Your task to perform on an android device: turn off priority inbox in the gmail app Image 0: 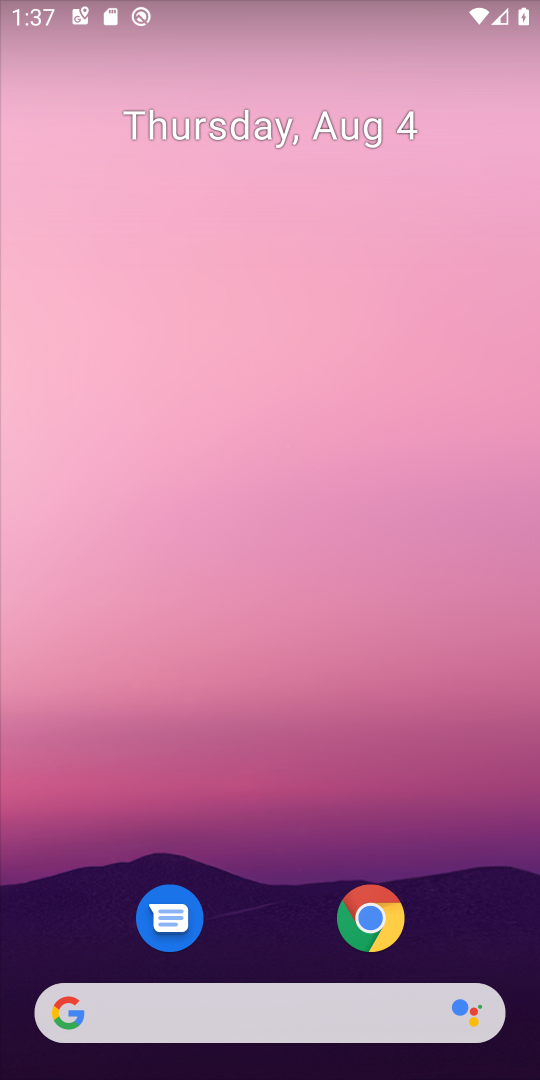
Step 0: drag from (251, 909) to (11, 349)
Your task to perform on an android device: turn off priority inbox in the gmail app Image 1: 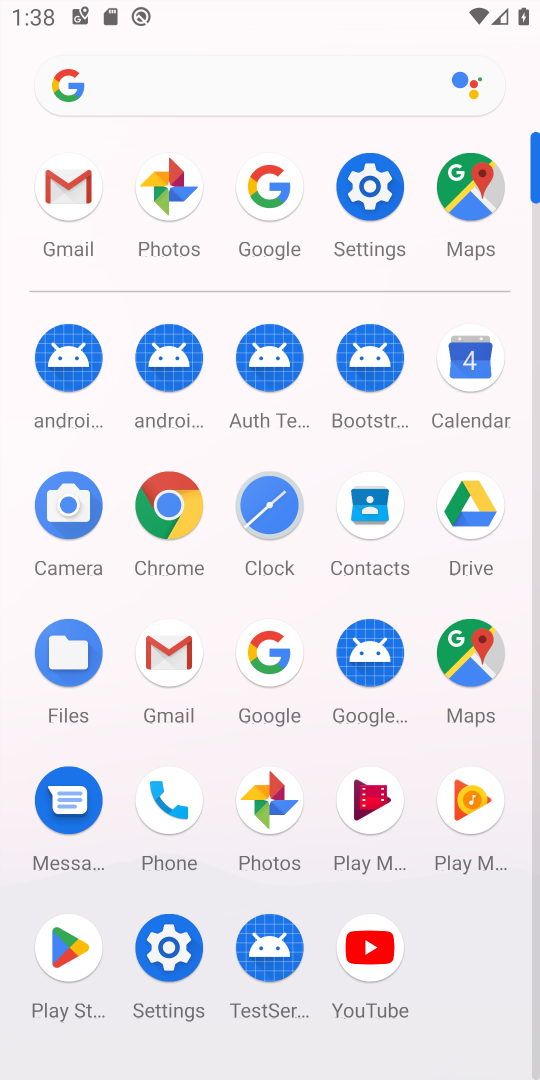
Step 1: click (76, 210)
Your task to perform on an android device: turn off priority inbox in the gmail app Image 2: 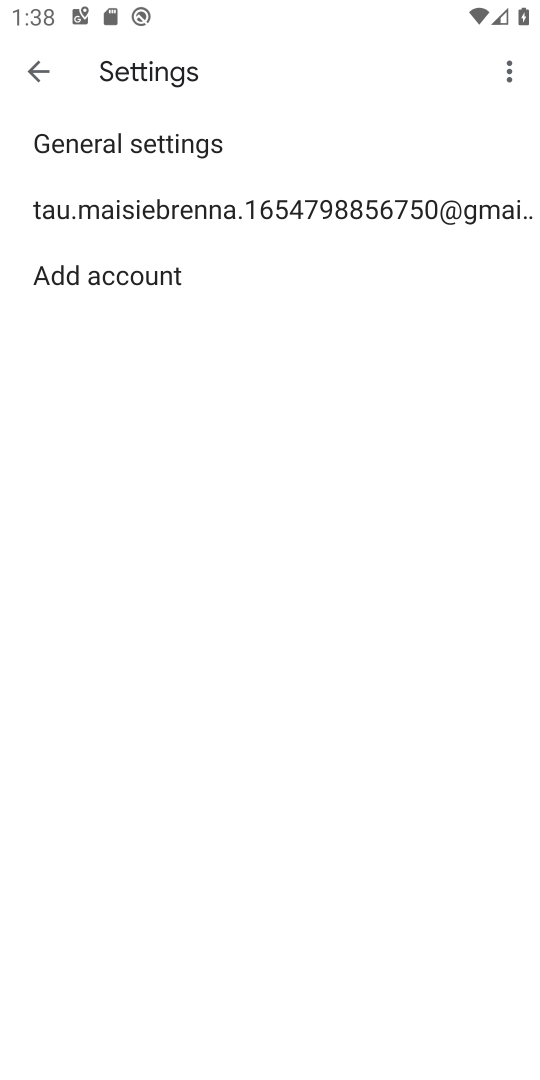
Step 2: drag from (76, 210) to (126, 210)
Your task to perform on an android device: turn off priority inbox in the gmail app Image 3: 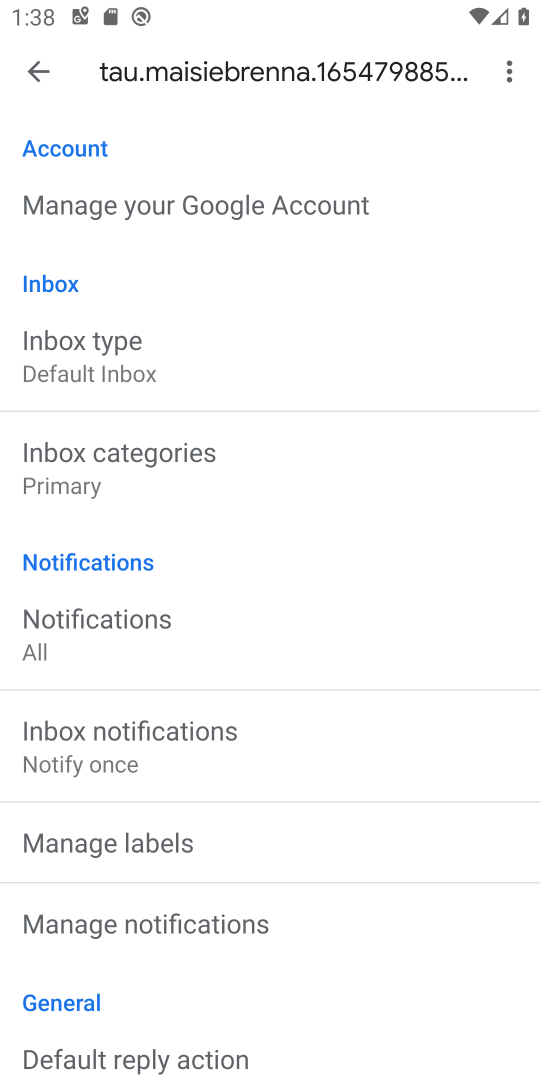
Step 3: click (103, 378)
Your task to perform on an android device: turn off priority inbox in the gmail app Image 4: 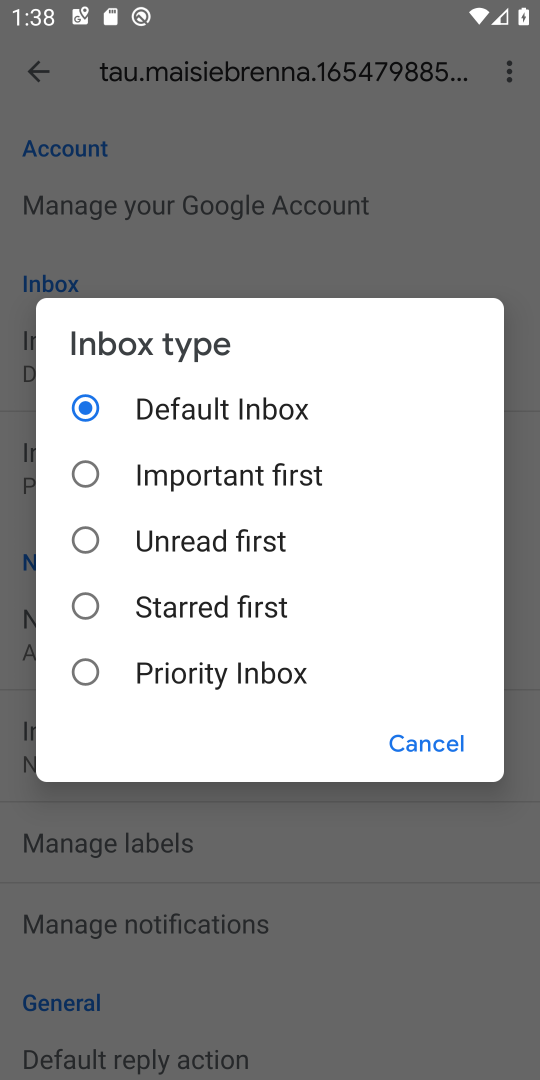
Step 4: task complete